Your task to perform on an android device: Open Google Chrome and click the shortcut for Amazon.com Image 0: 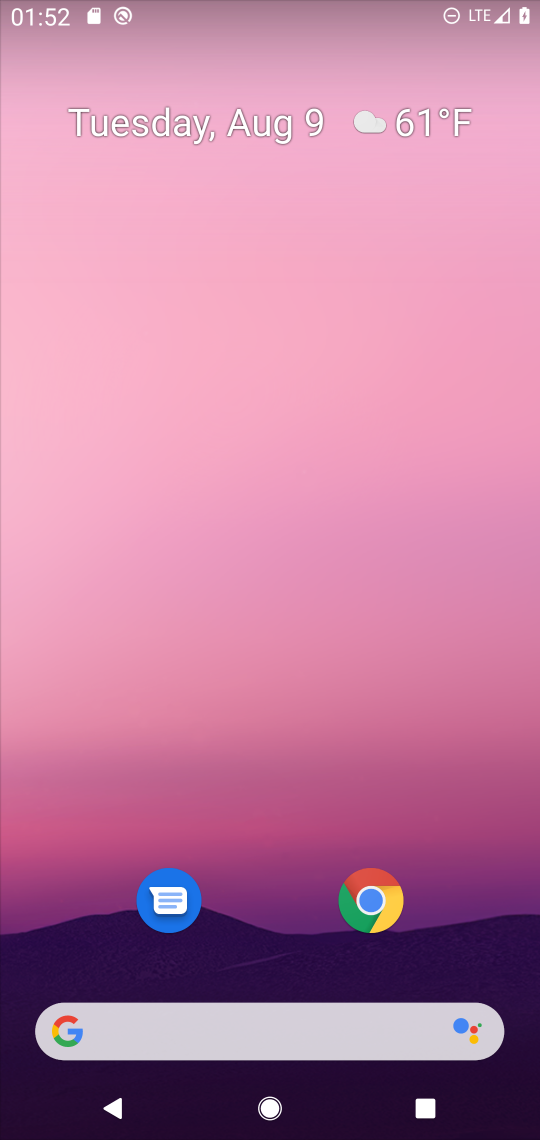
Step 0: drag from (283, 951) to (399, 52)
Your task to perform on an android device: Open Google Chrome and click the shortcut for Amazon.com Image 1: 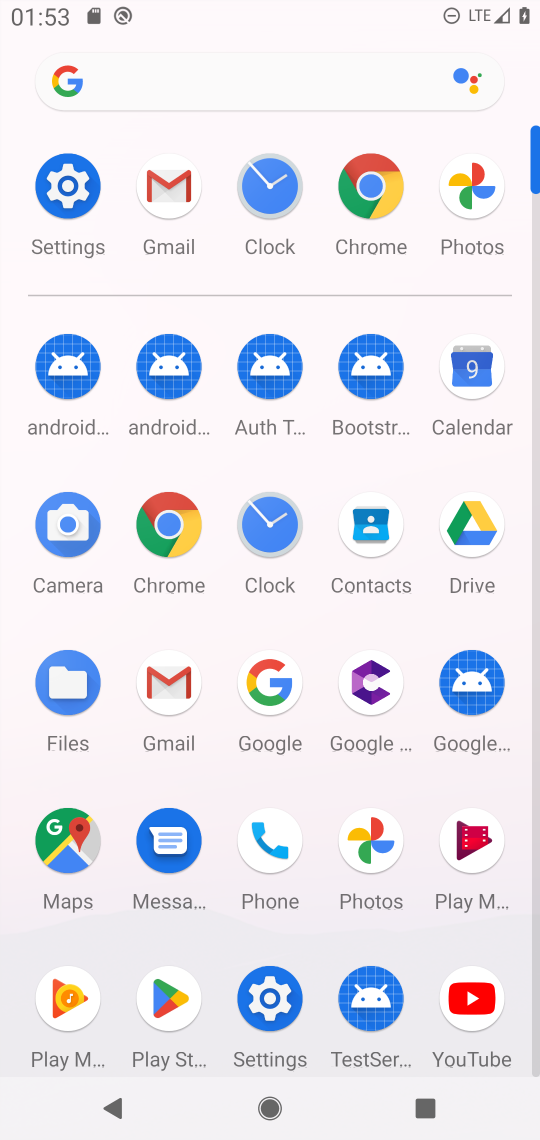
Step 1: click (171, 513)
Your task to perform on an android device: Open Google Chrome and click the shortcut for Amazon.com Image 2: 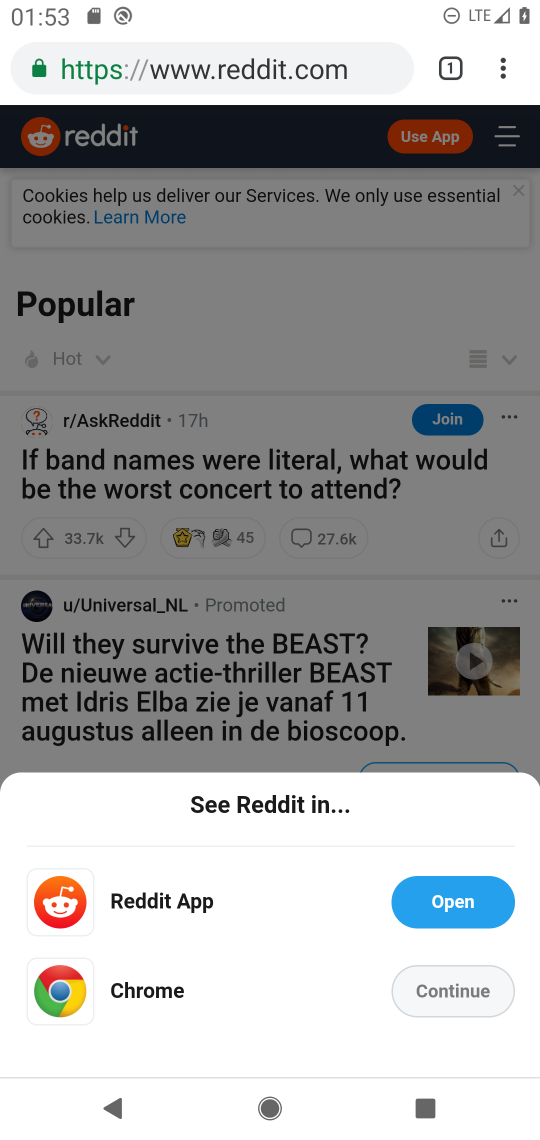
Step 2: press back button
Your task to perform on an android device: Open Google Chrome and click the shortcut for Amazon.com Image 3: 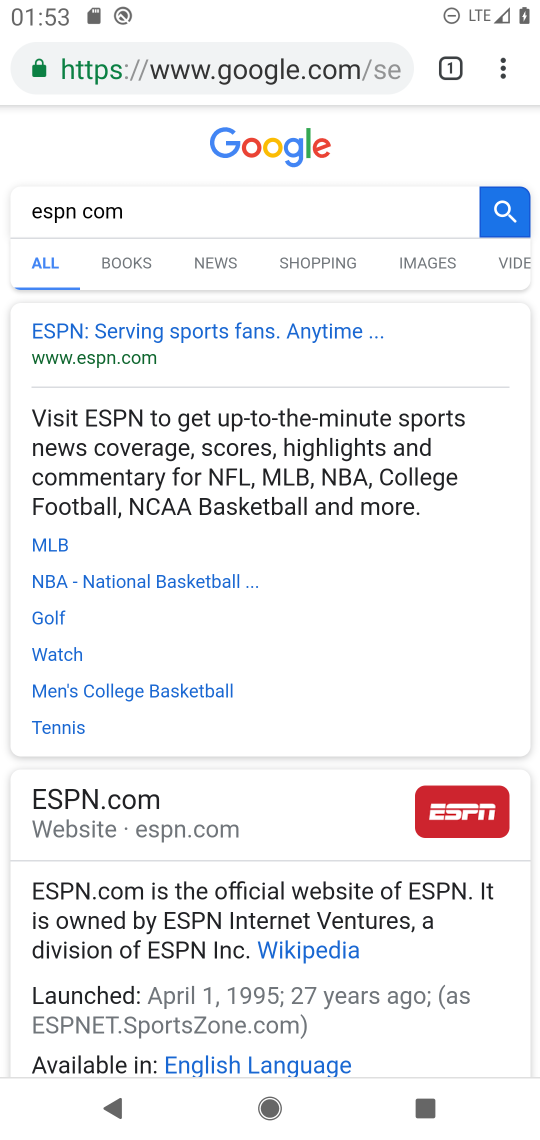
Step 3: press back button
Your task to perform on an android device: Open Google Chrome and click the shortcut for Amazon.com Image 4: 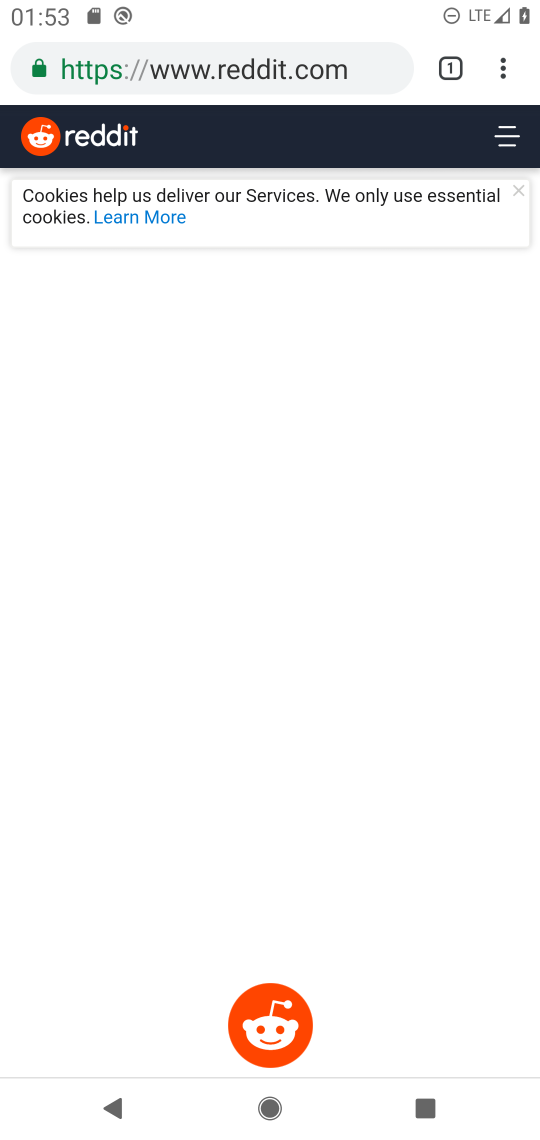
Step 4: press back button
Your task to perform on an android device: Open Google Chrome and click the shortcut for Amazon.com Image 5: 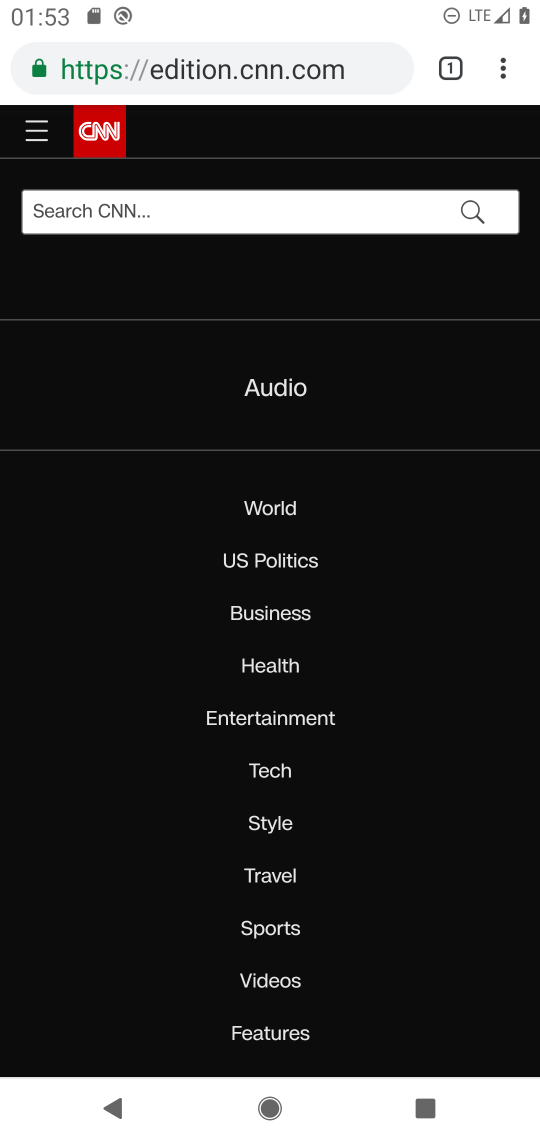
Step 5: press back button
Your task to perform on an android device: Open Google Chrome and click the shortcut for Amazon.com Image 6: 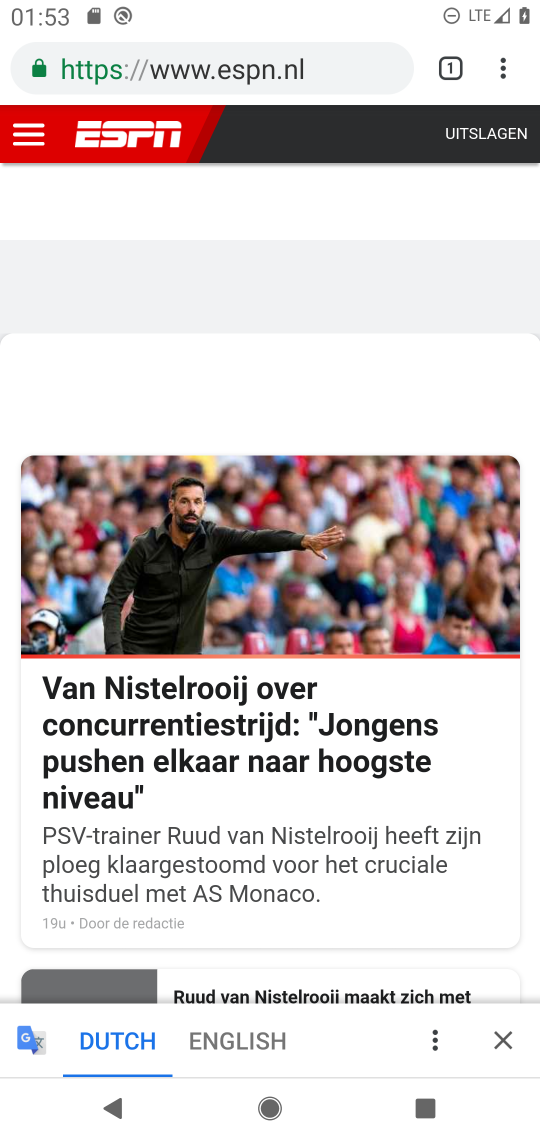
Step 6: press back button
Your task to perform on an android device: Open Google Chrome and click the shortcut for Amazon.com Image 7: 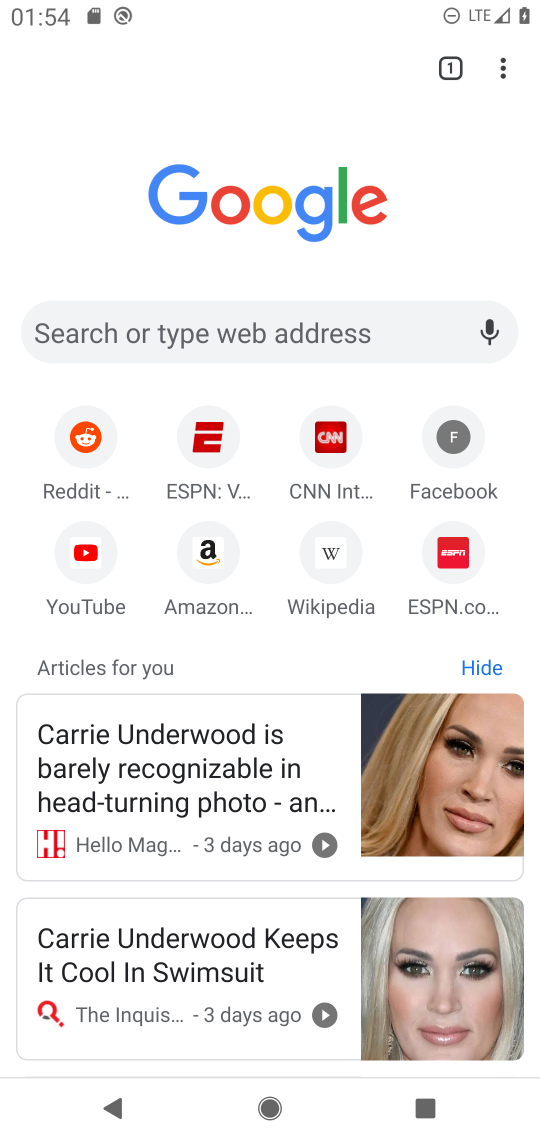
Step 7: click (203, 561)
Your task to perform on an android device: Open Google Chrome and click the shortcut for Amazon.com Image 8: 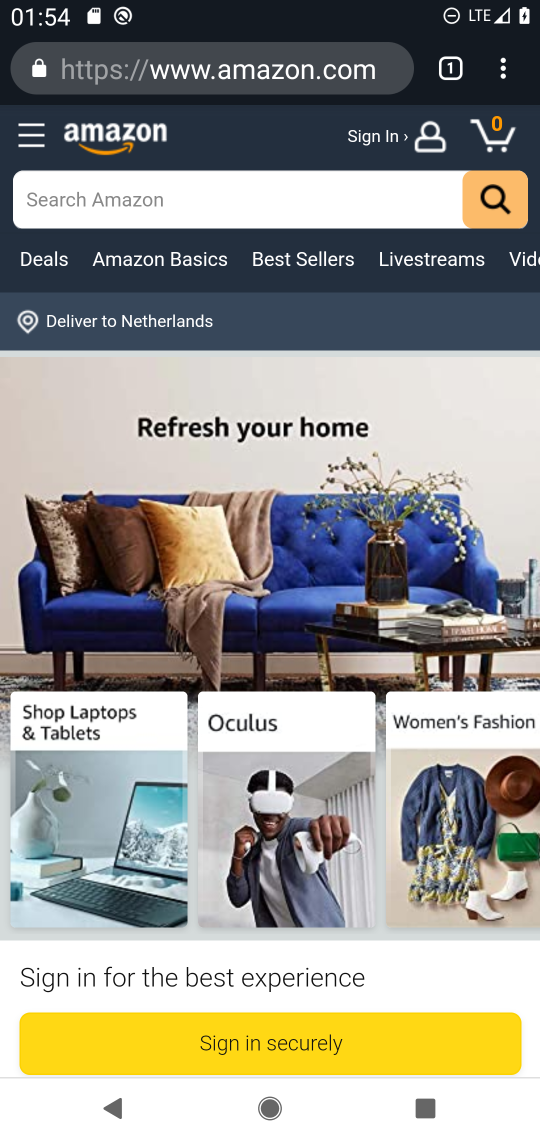
Step 8: task complete